Your task to perform on an android device: turn off notifications settings in the gmail app Image 0: 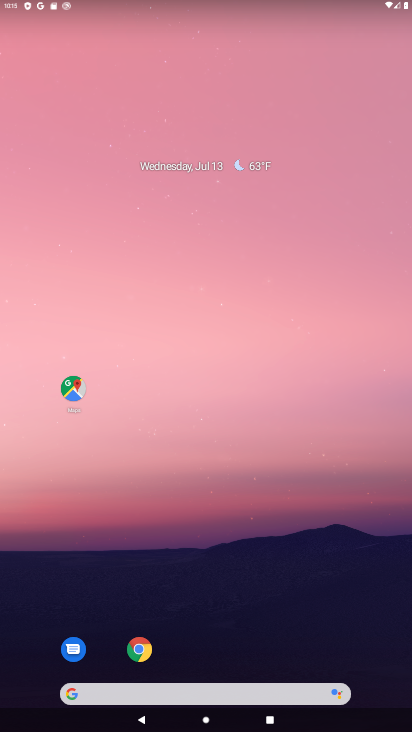
Step 0: drag from (287, 647) to (285, 191)
Your task to perform on an android device: turn off notifications settings in the gmail app Image 1: 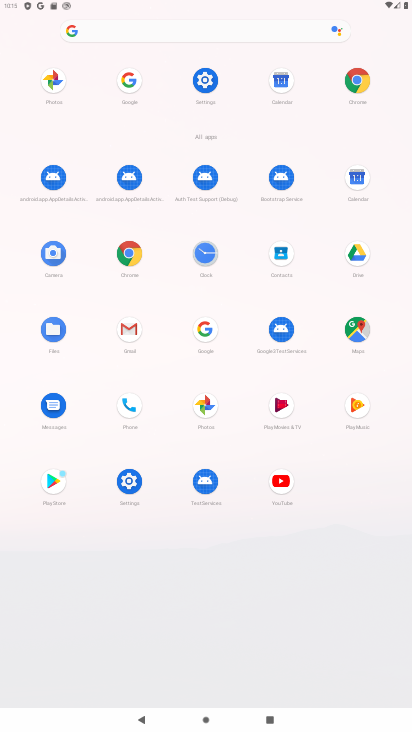
Step 1: click (124, 323)
Your task to perform on an android device: turn off notifications settings in the gmail app Image 2: 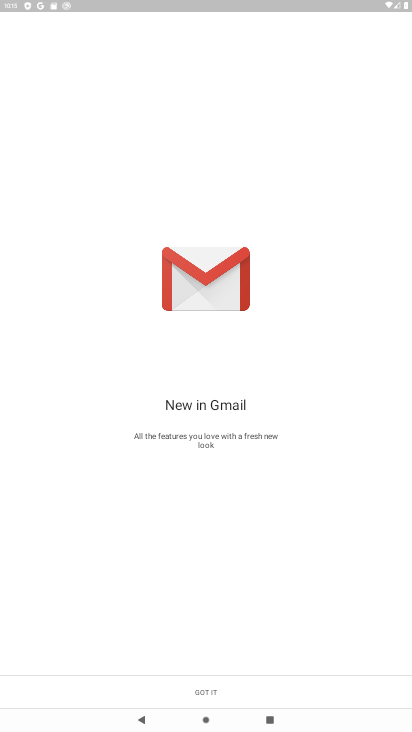
Step 2: click (220, 695)
Your task to perform on an android device: turn off notifications settings in the gmail app Image 3: 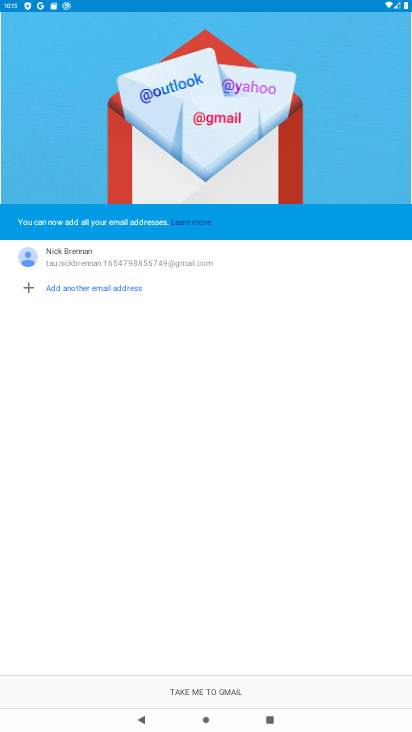
Step 3: click (185, 693)
Your task to perform on an android device: turn off notifications settings in the gmail app Image 4: 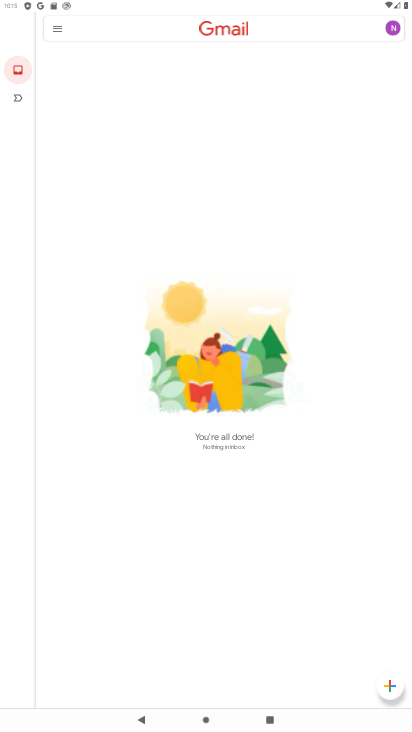
Step 4: click (50, 23)
Your task to perform on an android device: turn off notifications settings in the gmail app Image 5: 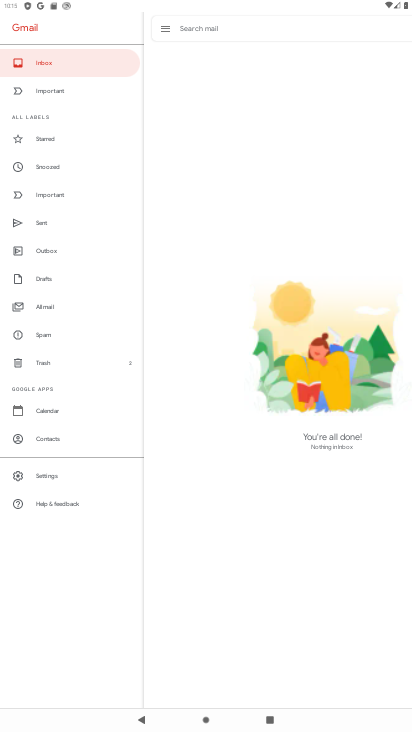
Step 5: click (47, 471)
Your task to perform on an android device: turn off notifications settings in the gmail app Image 6: 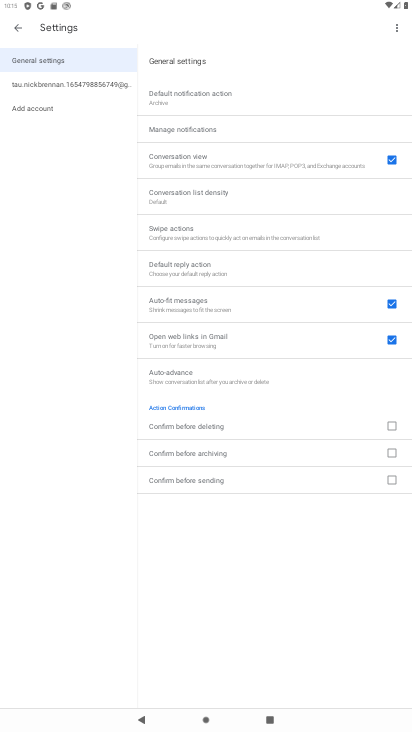
Step 6: click (183, 129)
Your task to perform on an android device: turn off notifications settings in the gmail app Image 7: 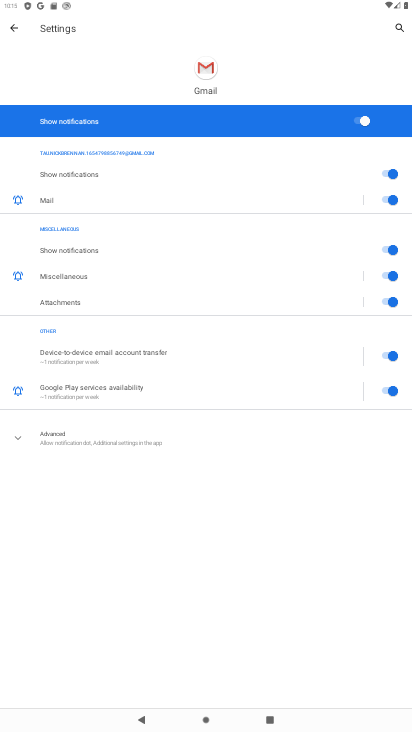
Step 7: click (361, 123)
Your task to perform on an android device: turn off notifications settings in the gmail app Image 8: 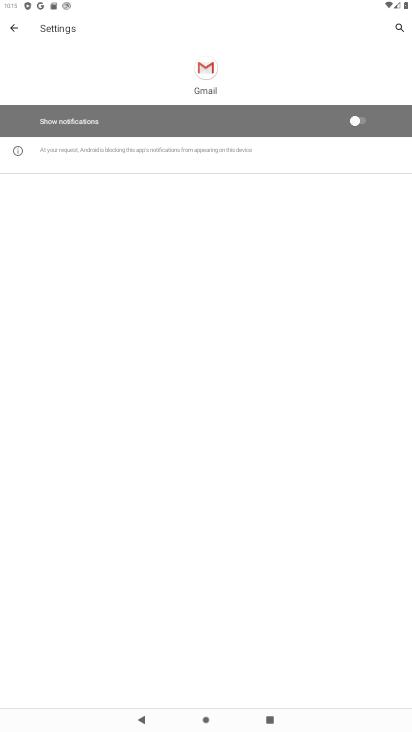
Step 8: task complete